Your task to perform on an android device: Go to battery settings Image 0: 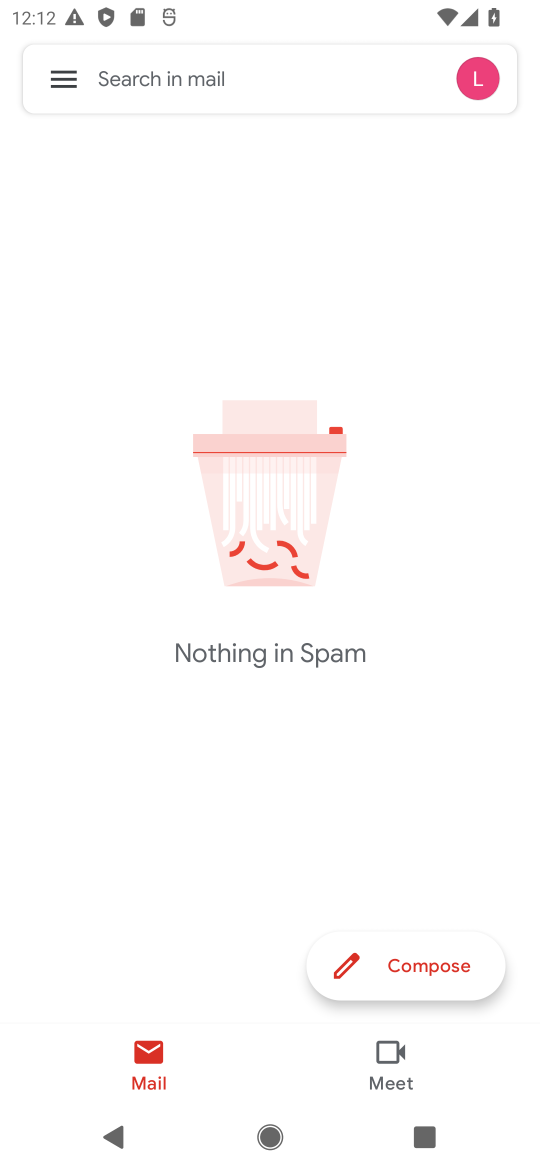
Step 0: press back button
Your task to perform on an android device: Go to battery settings Image 1: 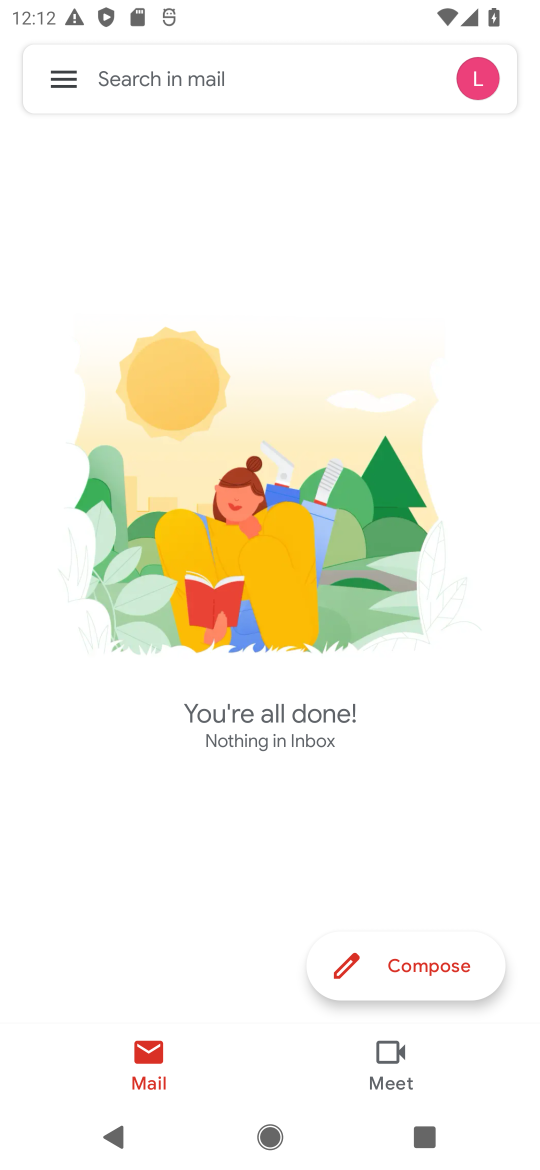
Step 1: press back button
Your task to perform on an android device: Go to battery settings Image 2: 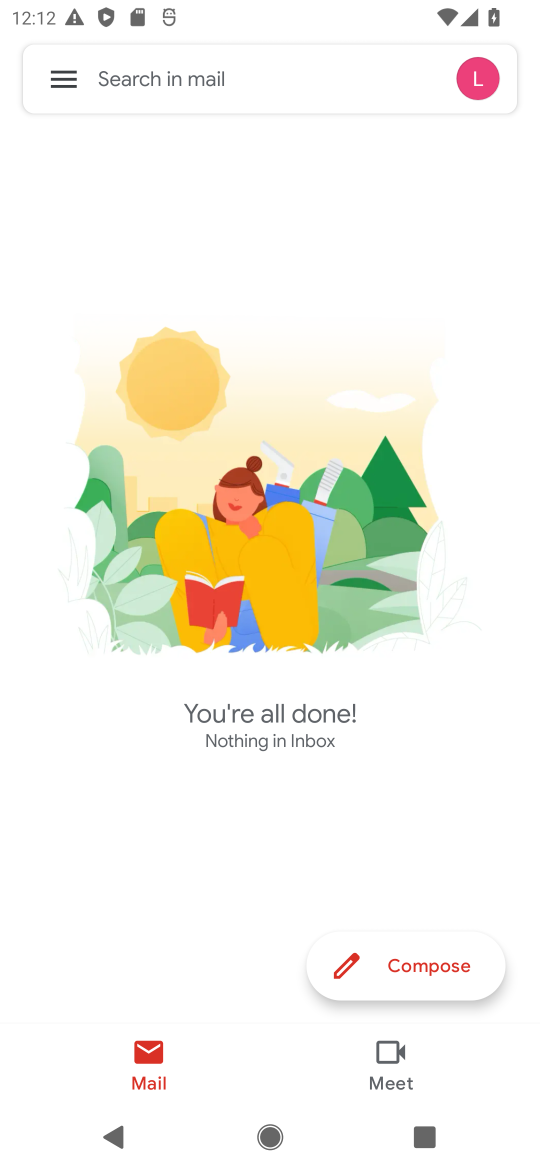
Step 2: press back button
Your task to perform on an android device: Go to battery settings Image 3: 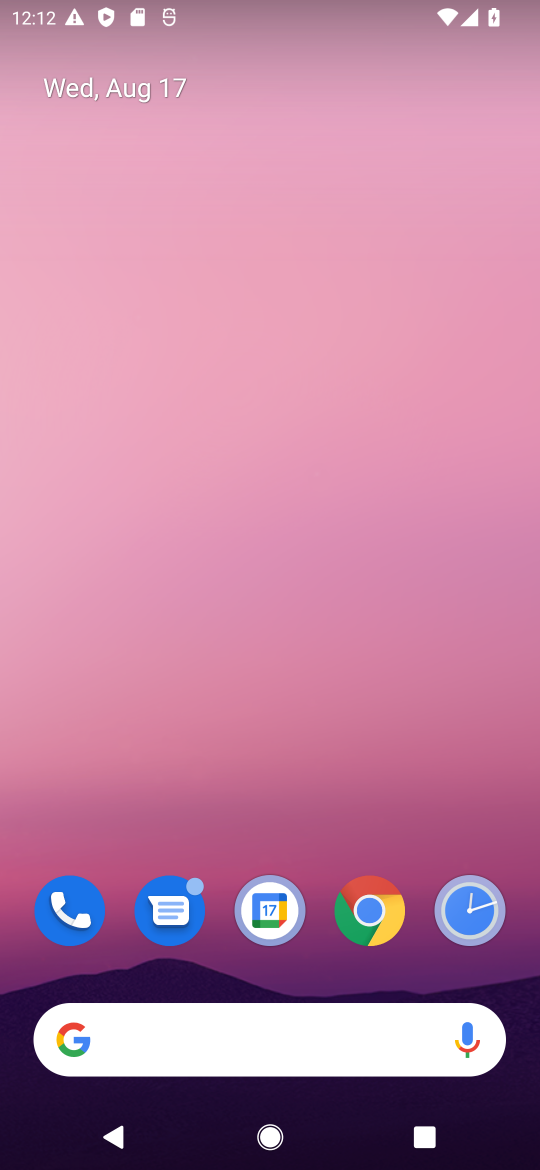
Step 3: drag from (232, 931) to (398, 36)
Your task to perform on an android device: Go to battery settings Image 4: 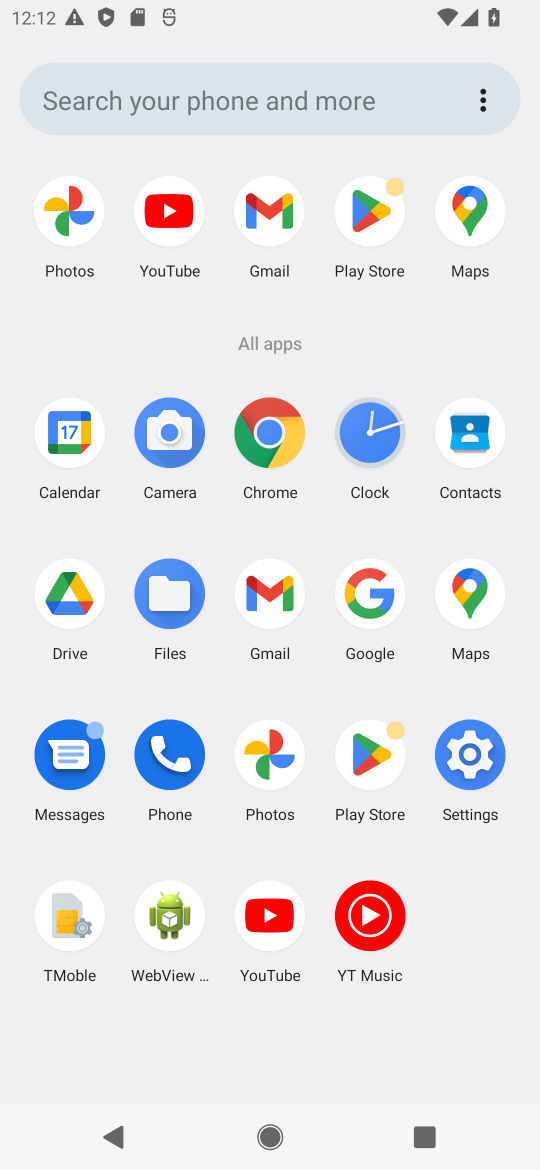
Step 4: click (480, 749)
Your task to perform on an android device: Go to battery settings Image 5: 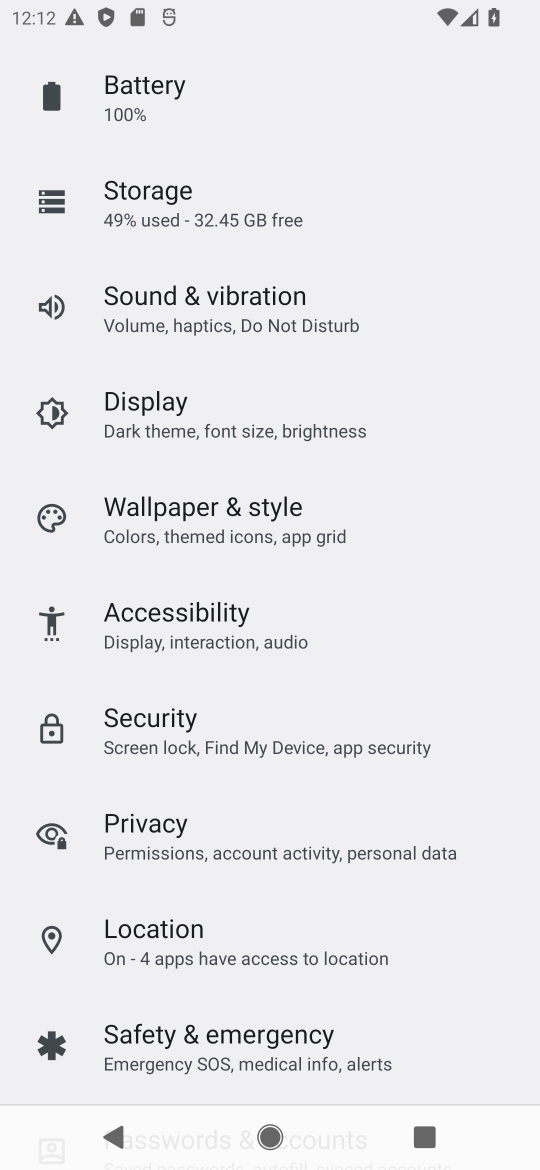
Step 5: click (194, 91)
Your task to perform on an android device: Go to battery settings Image 6: 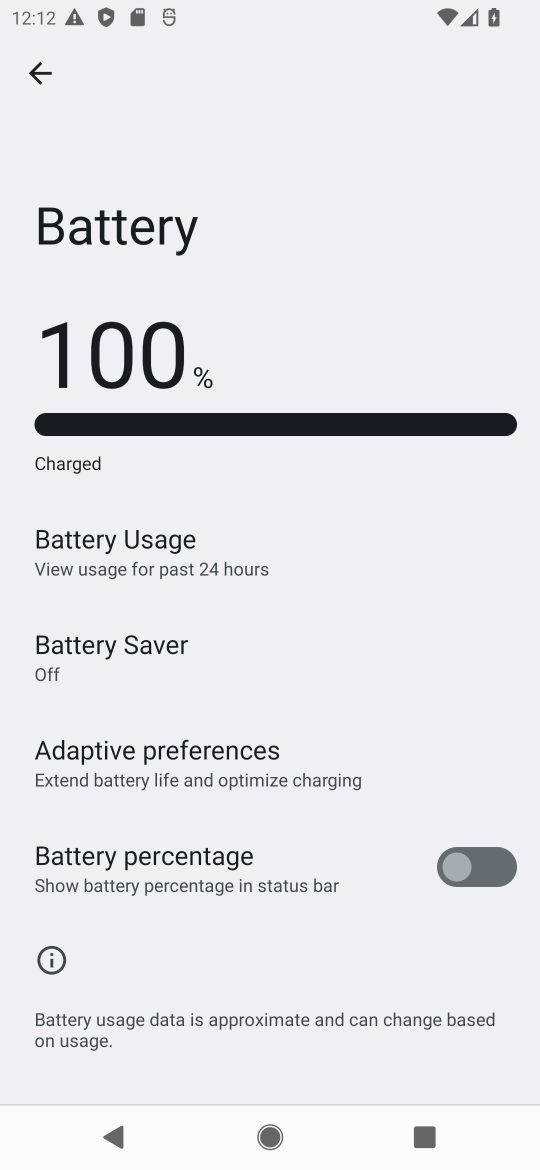
Step 6: task complete